Your task to perform on an android device: Show me recent news Image 0: 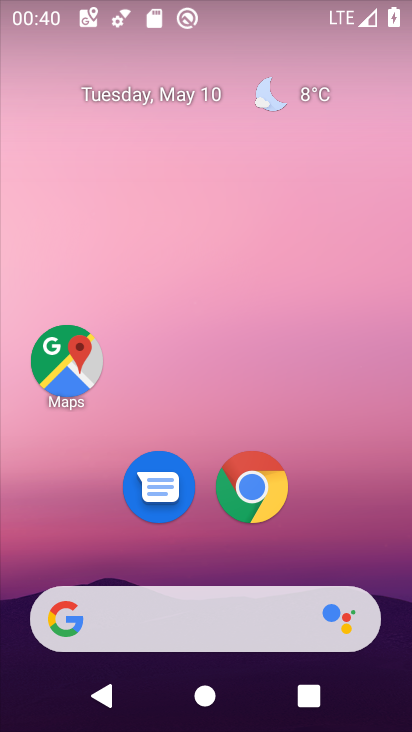
Step 0: drag from (209, 556) to (247, 32)
Your task to perform on an android device: Show me recent news Image 1: 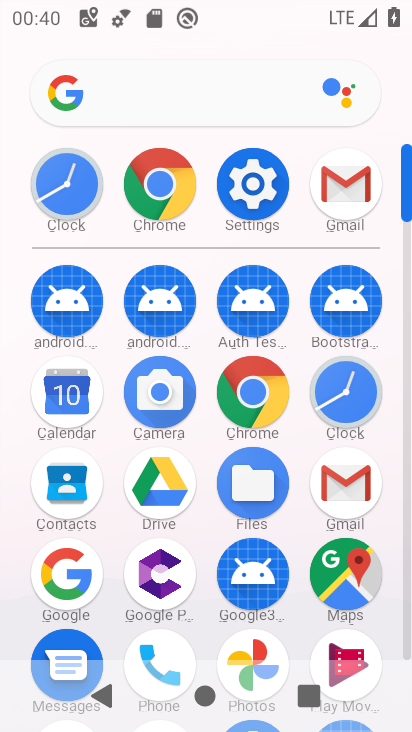
Step 1: task complete